Your task to perform on an android device: Open Google Maps Image 0: 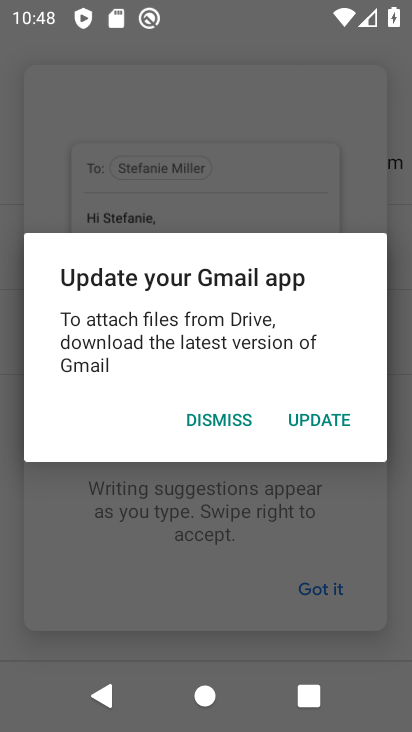
Step 0: press home button
Your task to perform on an android device: Open Google Maps Image 1: 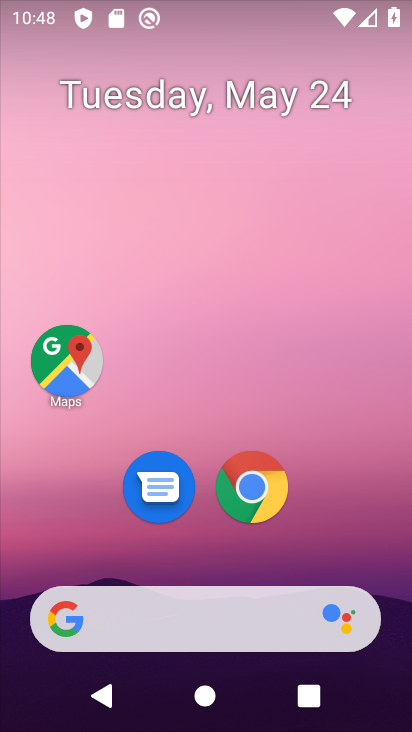
Step 1: click (70, 360)
Your task to perform on an android device: Open Google Maps Image 2: 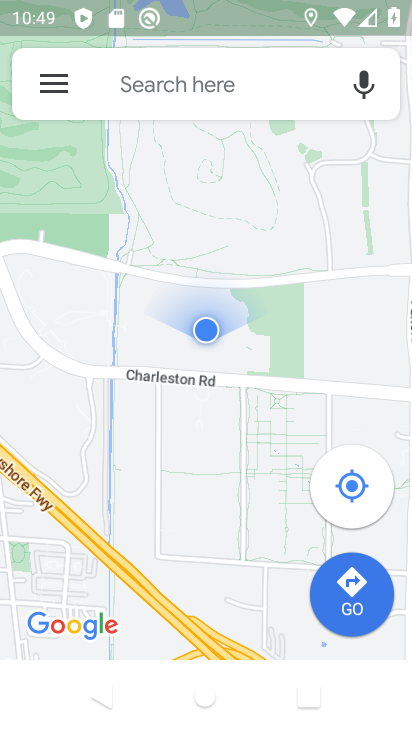
Step 2: task complete